Your task to perform on an android device: turn on improve location accuracy Image 0: 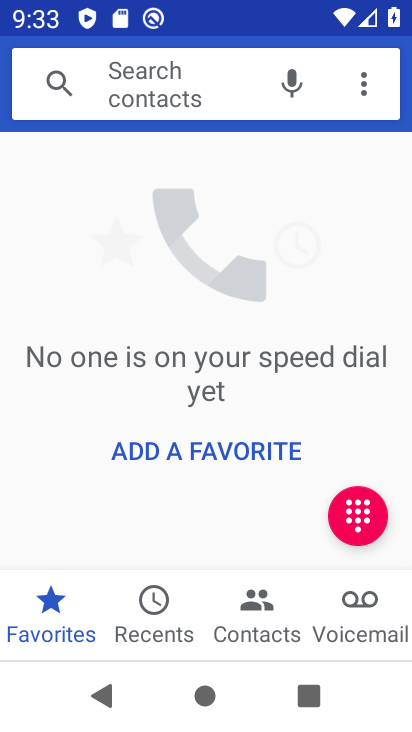
Step 0: press home button
Your task to perform on an android device: turn on improve location accuracy Image 1: 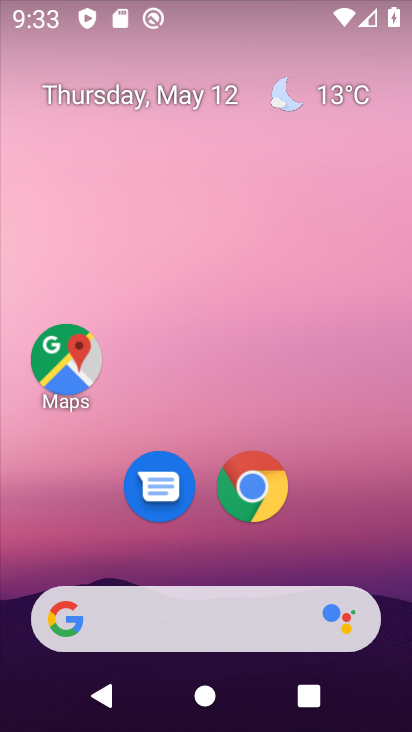
Step 1: drag from (347, 446) to (294, 89)
Your task to perform on an android device: turn on improve location accuracy Image 2: 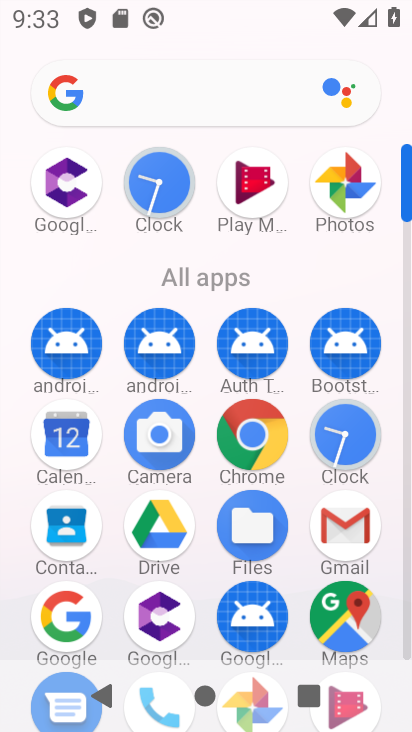
Step 2: drag from (283, 290) to (255, 18)
Your task to perform on an android device: turn on improve location accuracy Image 3: 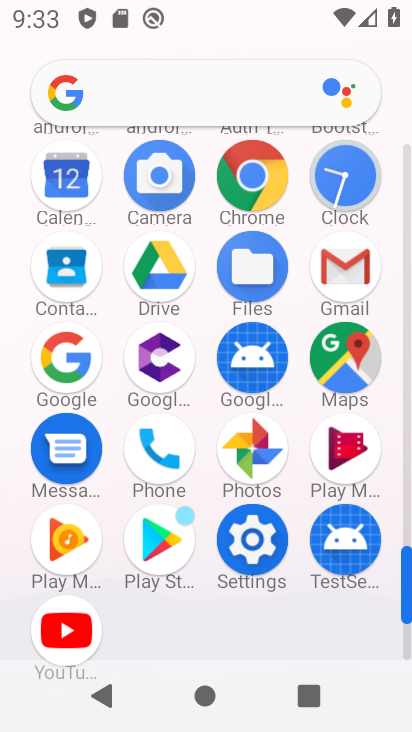
Step 3: click (252, 562)
Your task to perform on an android device: turn on improve location accuracy Image 4: 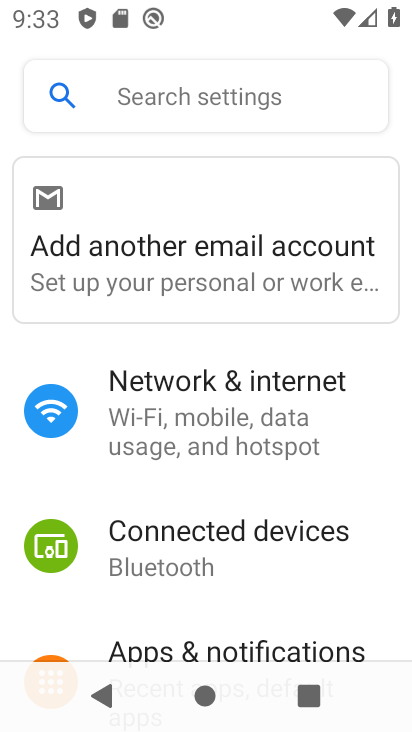
Step 4: drag from (232, 598) to (190, 237)
Your task to perform on an android device: turn on improve location accuracy Image 5: 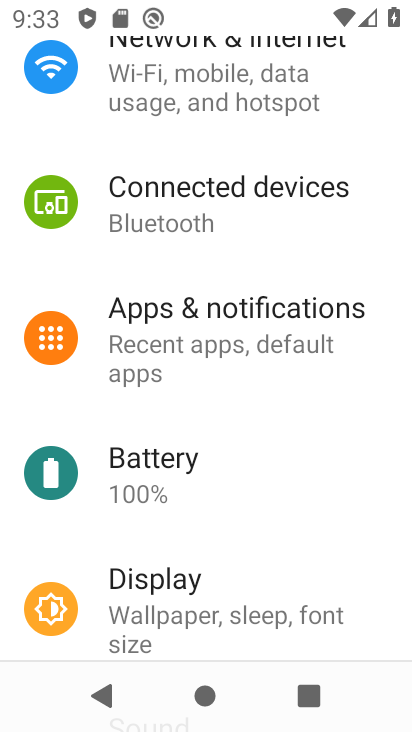
Step 5: drag from (266, 525) to (217, 247)
Your task to perform on an android device: turn on improve location accuracy Image 6: 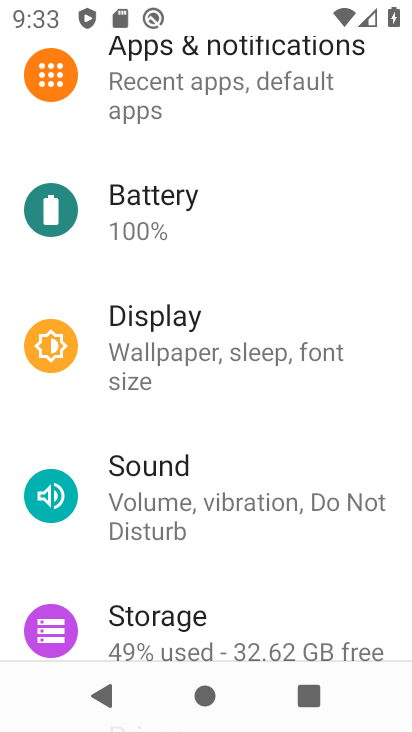
Step 6: drag from (262, 535) to (215, 183)
Your task to perform on an android device: turn on improve location accuracy Image 7: 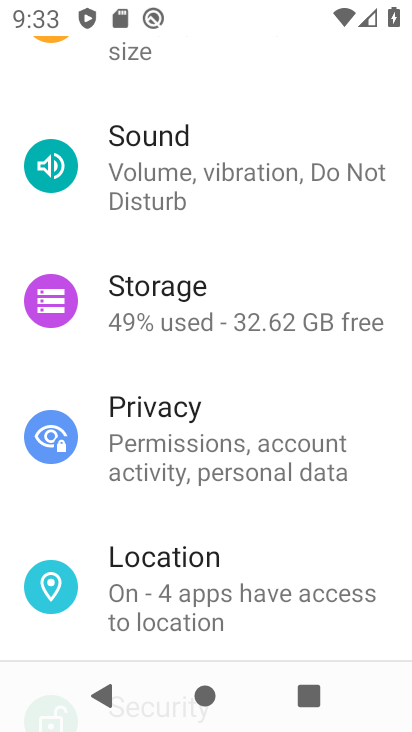
Step 7: click (250, 591)
Your task to perform on an android device: turn on improve location accuracy Image 8: 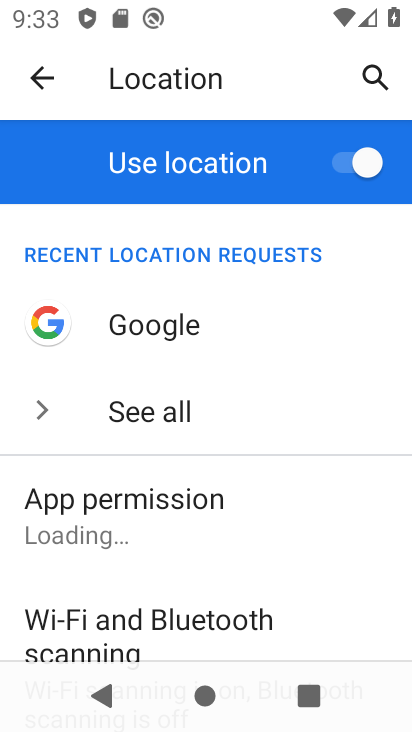
Step 8: drag from (242, 581) to (196, 247)
Your task to perform on an android device: turn on improve location accuracy Image 9: 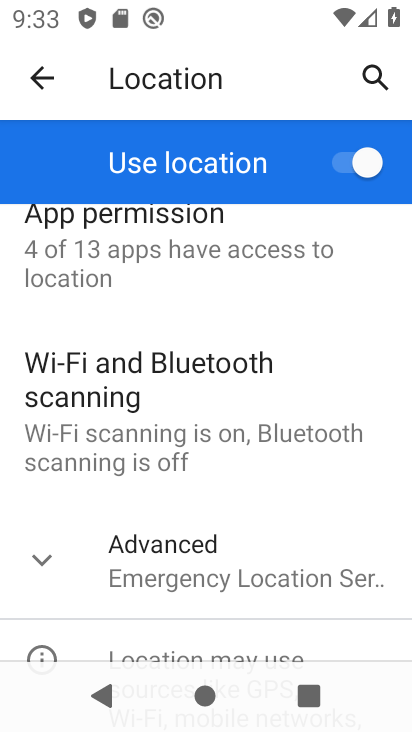
Step 9: click (269, 578)
Your task to perform on an android device: turn on improve location accuracy Image 10: 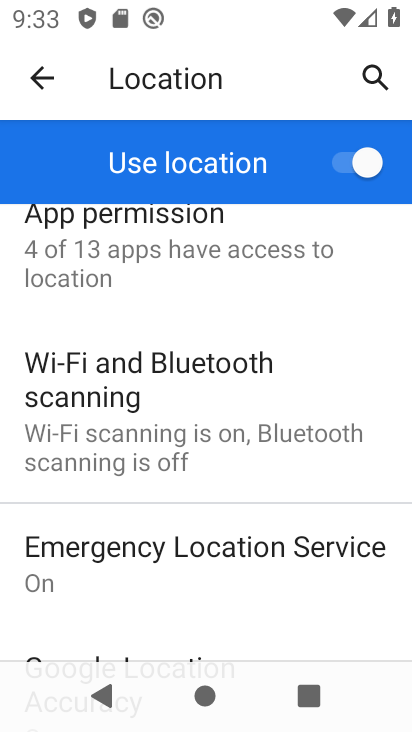
Step 10: drag from (313, 553) to (268, 360)
Your task to perform on an android device: turn on improve location accuracy Image 11: 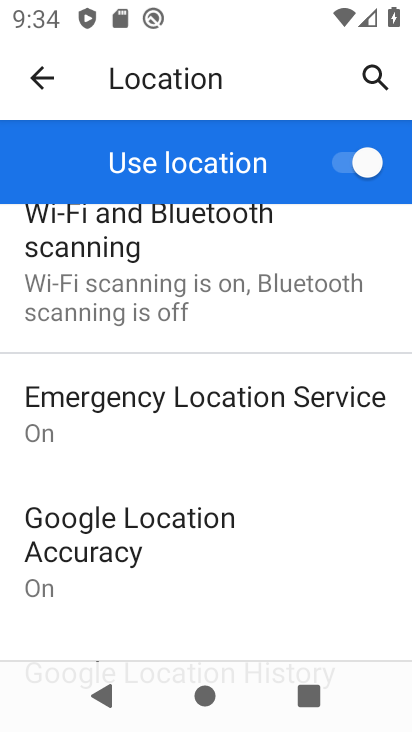
Step 11: click (152, 520)
Your task to perform on an android device: turn on improve location accuracy Image 12: 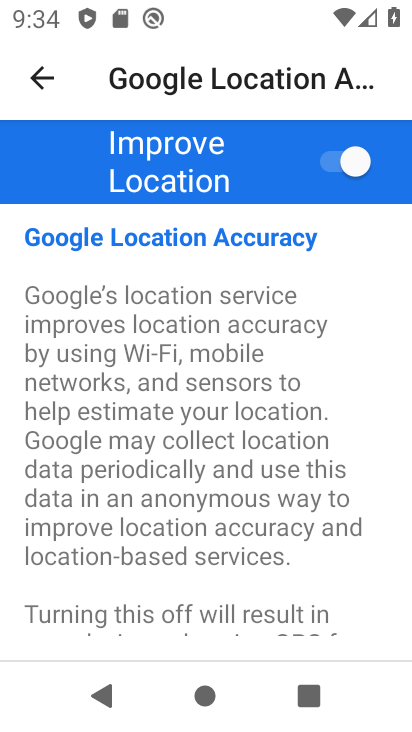
Step 12: task complete